Your task to perform on an android device: open chrome and create a bookmark for the current page Image 0: 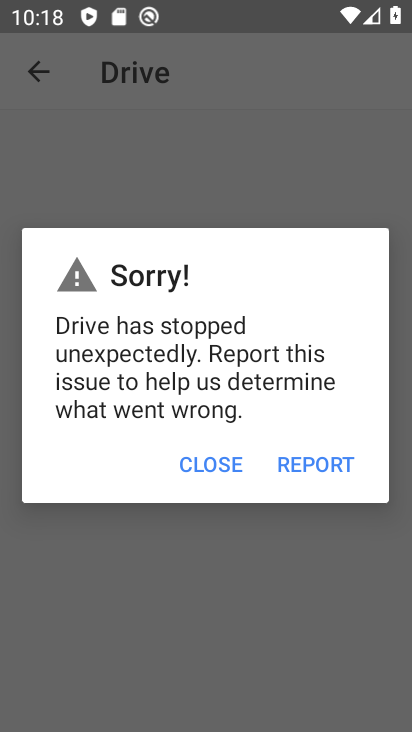
Step 0: press home button
Your task to perform on an android device: open chrome and create a bookmark for the current page Image 1: 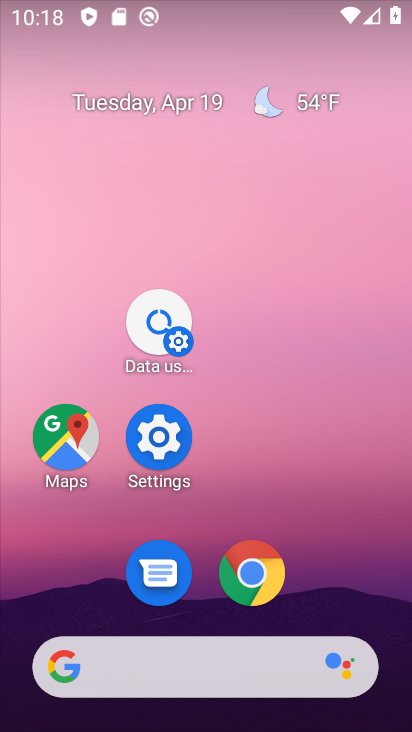
Step 1: click (243, 576)
Your task to perform on an android device: open chrome and create a bookmark for the current page Image 2: 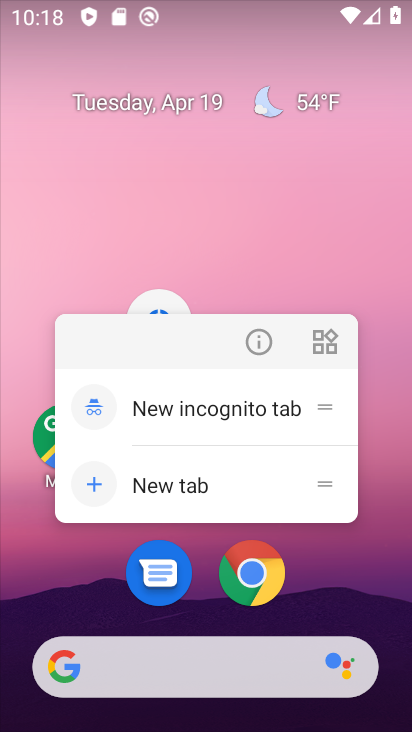
Step 2: click (243, 576)
Your task to perform on an android device: open chrome and create a bookmark for the current page Image 3: 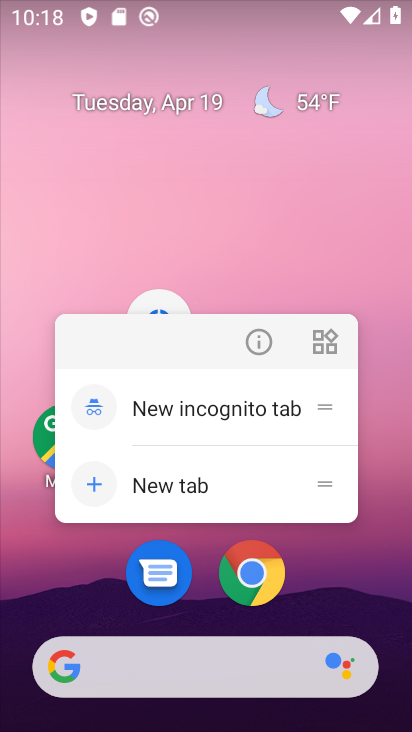
Step 3: click (243, 576)
Your task to perform on an android device: open chrome and create a bookmark for the current page Image 4: 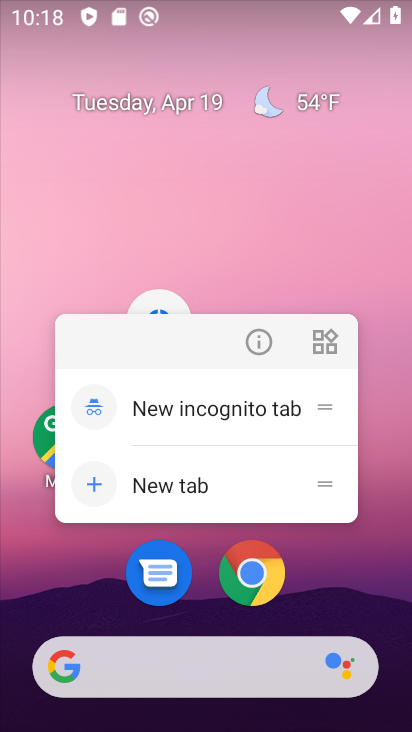
Step 4: click (243, 576)
Your task to perform on an android device: open chrome and create a bookmark for the current page Image 5: 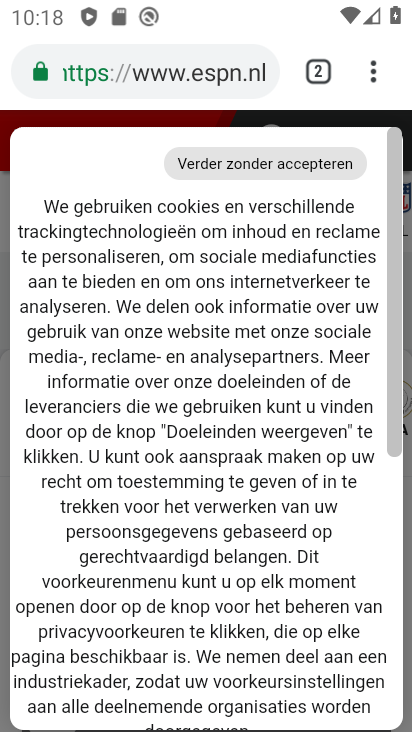
Step 5: click (374, 66)
Your task to perform on an android device: open chrome and create a bookmark for the current page Image 6: 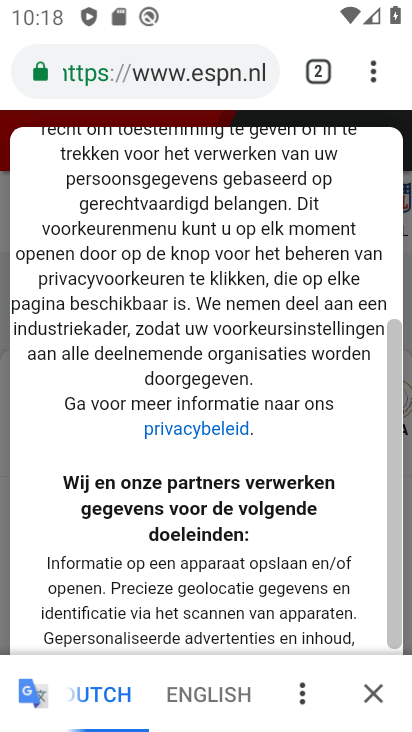
Step 6: click (376, 69)
Your task to perform on an android device: open chrome and create a bookmark for the current page Image 7: 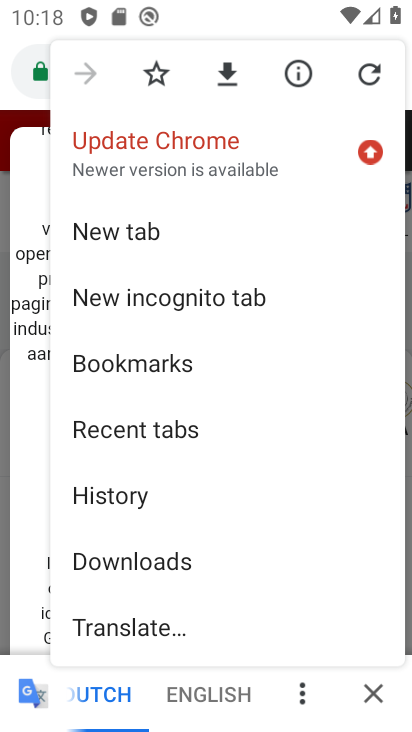
Step 7: click (157, 76)
Your task to perform on an android device: open chrome and create a bookmark for the current page Image 8: 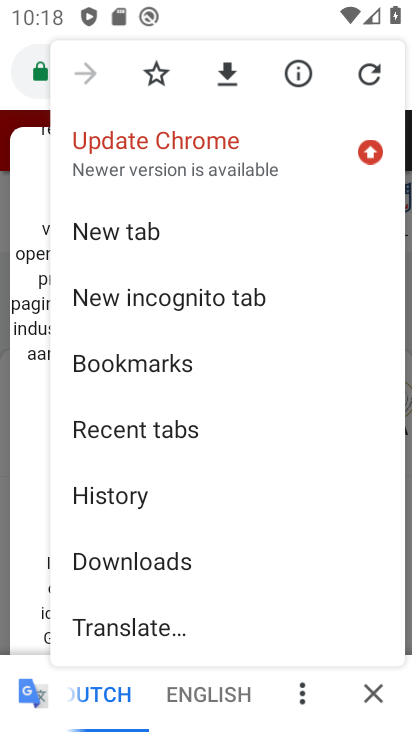
Step 8: click (157, 71)
Your task to perform on an android device: open chrome and create a bookmark for the current page Image 9: 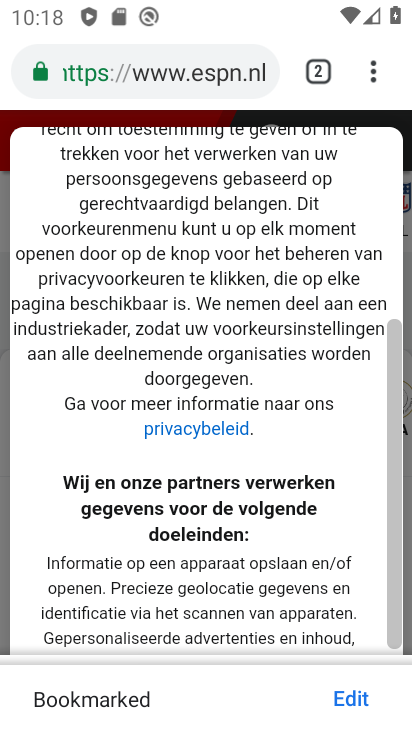
Step 9: click (371, 78)
Your task to perform on an android device: open chrome and create a bookmark for the current page Image 10: 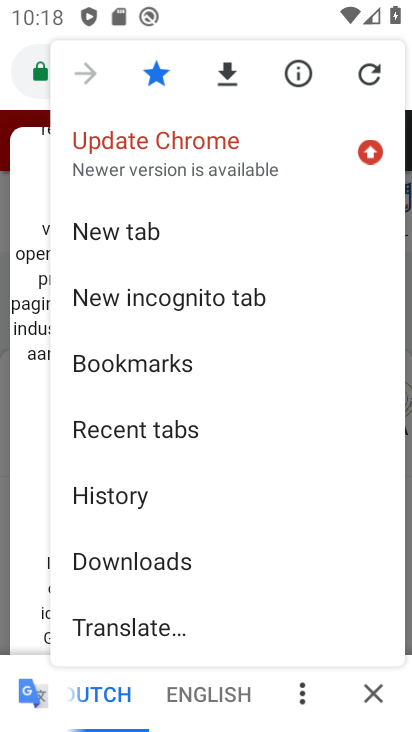
Step 10: task complete